Your task to perform on an android device: turn on javascript in the chrome app Image 0: 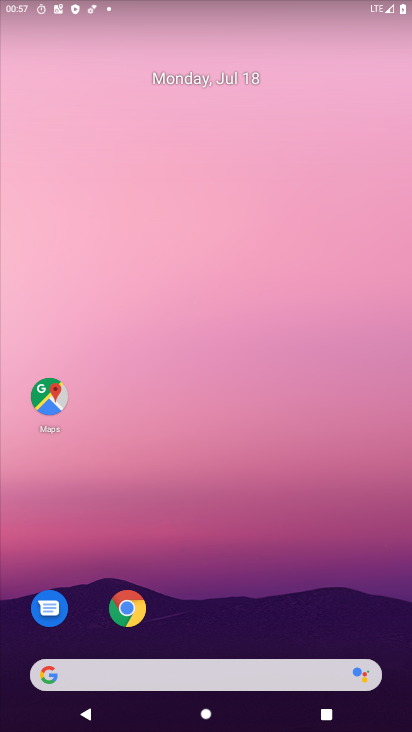
Step 0: drag from (326, 578) to (321, 1)
Your task to perform on an android device: turn on javascript in the chrome app Image 1: 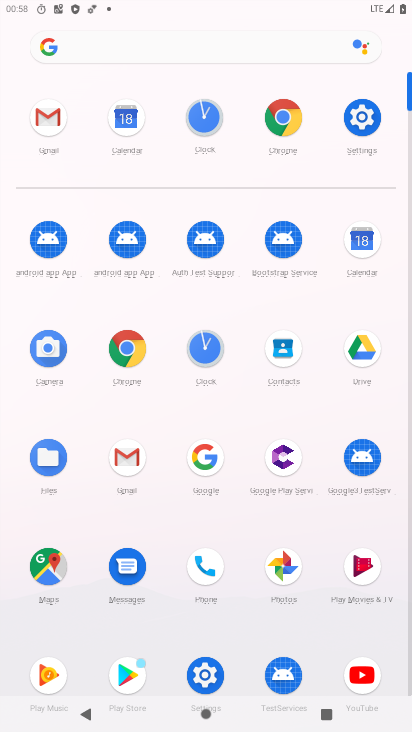
Step 1: click (274, 129)
Your task to perform on an android device: turn on javascript in the chrome app Image 2: 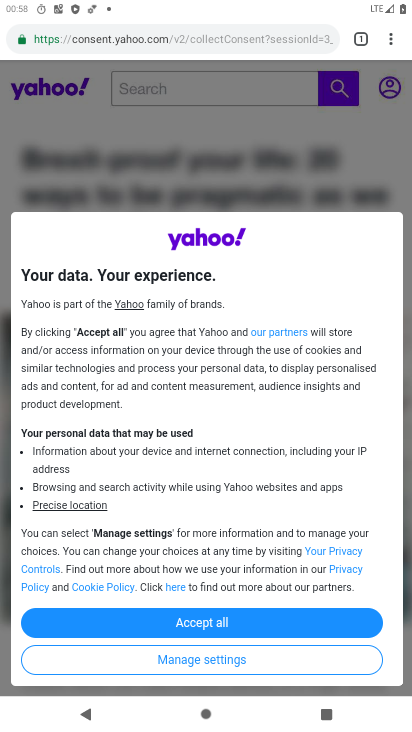
Step 2: drag from (391, 38) to (268, 467)
Your task to perform on an android device: turn on javascript in the chrome app Image 3: 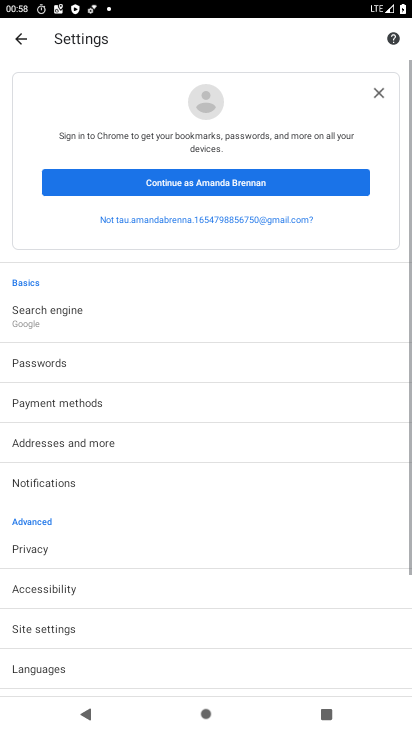
Step 3: drag from (201, 619) to (334, 115)
Your task to perform on an android device: turn on javascript in the chrome app Image 4: 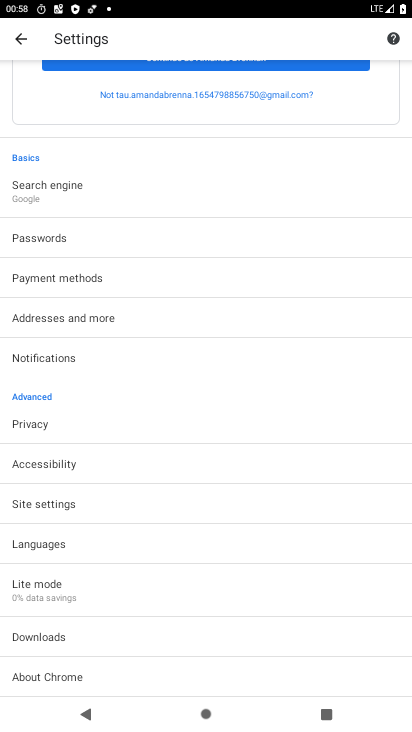
Step 4: click (50, 502)
Your task to perform on an android device: turn on javascript in the chrome app Image 5: 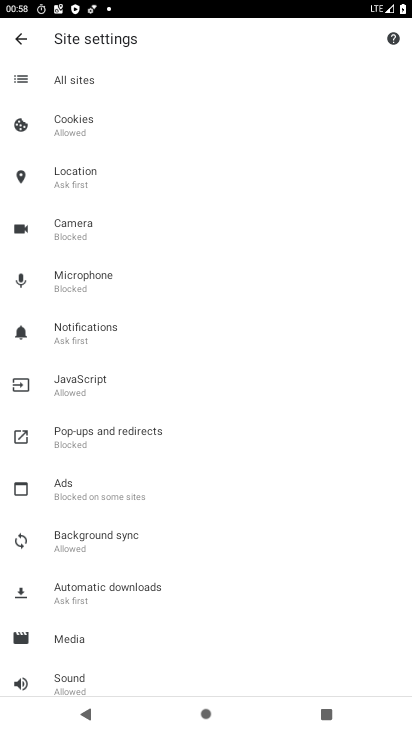
Step 5: click (93, 380)
Your task to perform on an android device: turn on javascript in the chrome app Image 6: 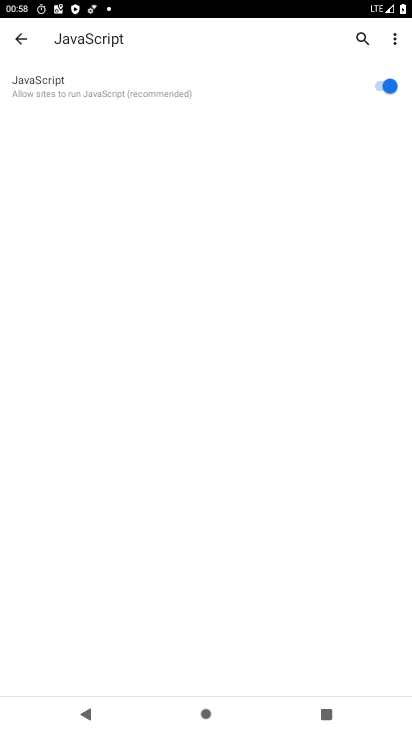
Step 6: task complete